Your task to perform on an android device: Search for Italian restaurants on Maps Image 0: 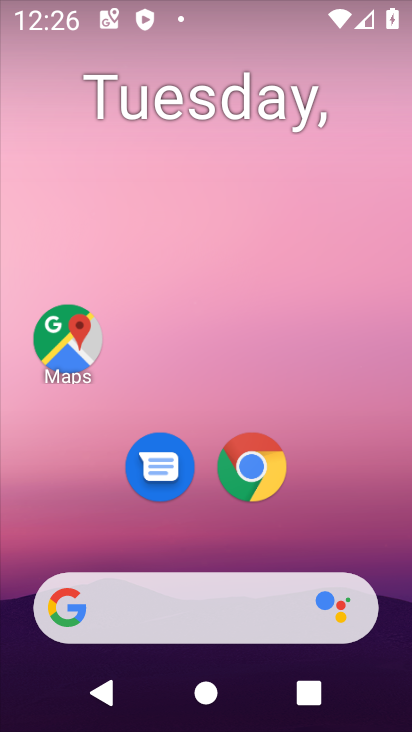
Step 0: drag from (348, 500) to (217, 7)
Your task to perform on an android device: Search for Italian restaurants on Maps Image 1: 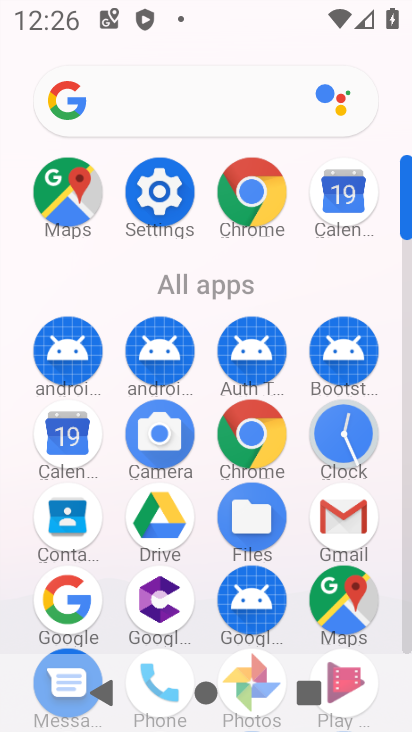
Step 1: click (64, 188)
Your task to perform on an android device: Search for Italian restaurants on Maps Image 2: 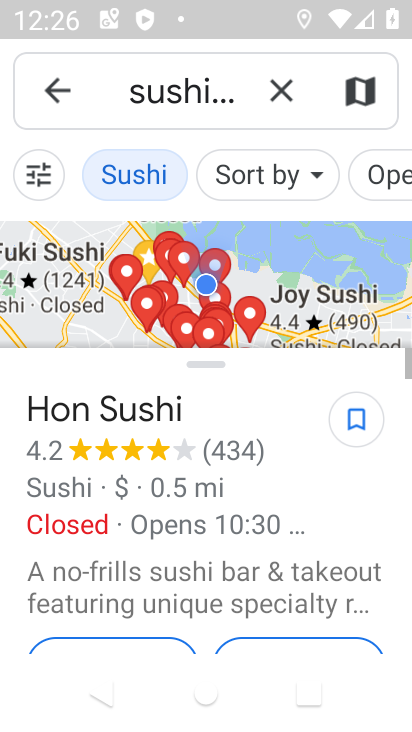
Step 2: click (283, 81)
Your task to perform on an android device: Search for Italian restaurants on Maps Image 3: 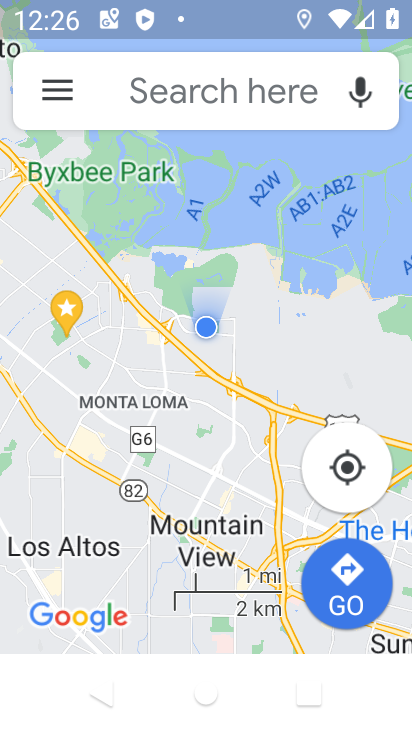
Step 3: click (283, 81)
Your task to perform on an android device: Search for Italian restaurants on Maps Image 4: 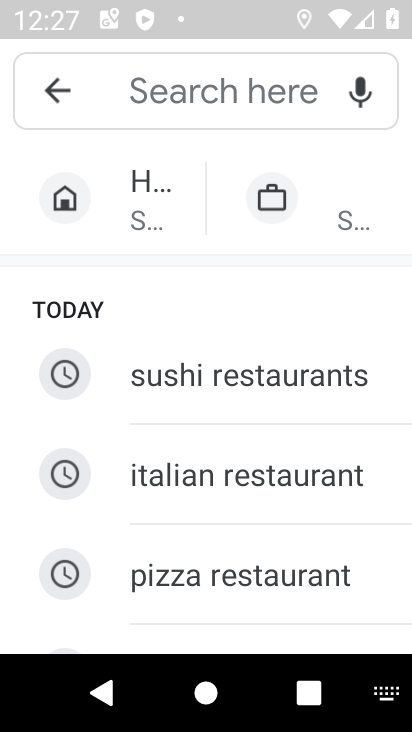
Step 4: click (221, 458)
Your task to perform on an android device: Search for Italian restaurants on Maps Image 5: 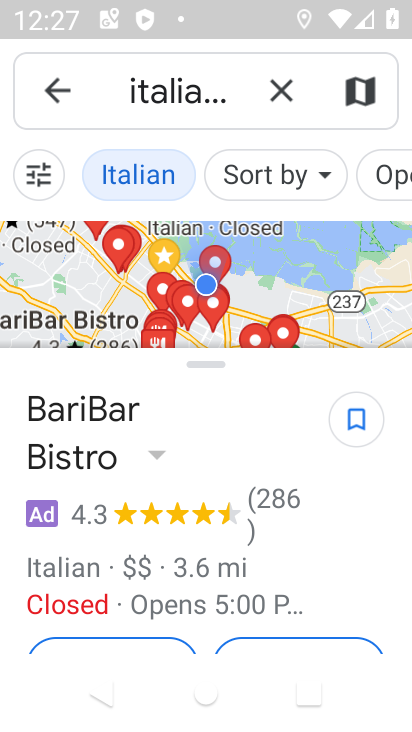
Step 5: task complete